Your task to perform on an android device: Open calendar and show me the first week of next month Image 0: 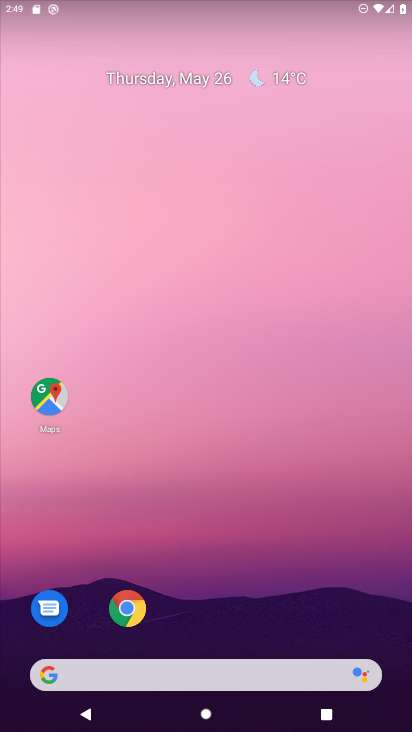
Step 0: drag from (316, 470) to (247, 29)
Your task to perform on an android device: Open calendar and show me the first week of next month Image 1: 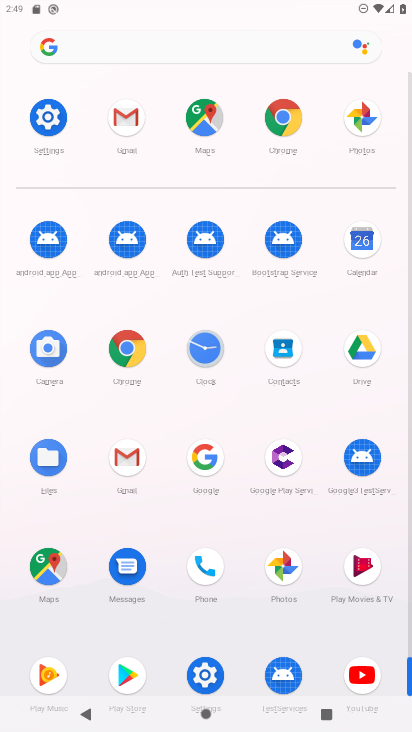
Step 1: click (364, 246)
Your task to perform on an android device: Open calendar and show me the first week of next month Image 2: 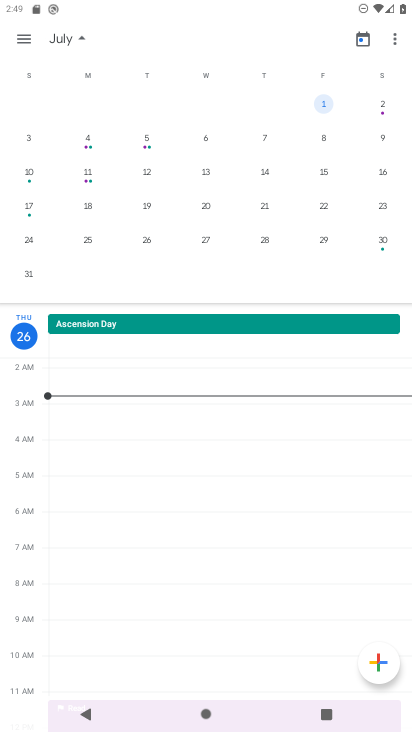
Step 2: task complete